Your task to perform on an android device: Open the Play Movies app and select the watchlist tab. Image 0: 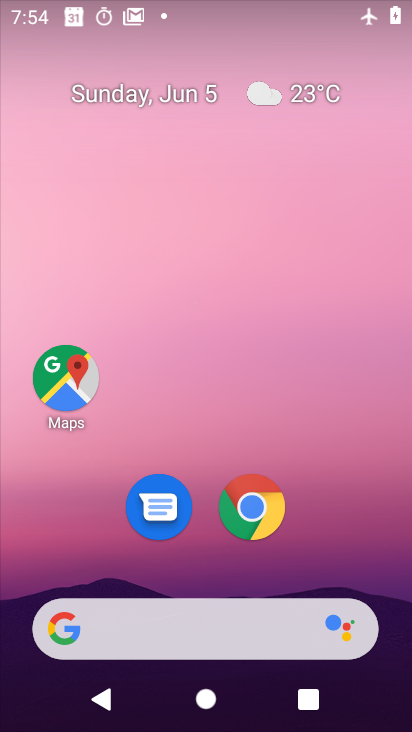
Step 0: drag from (270, 670) to (85, 75)
Your task to perform on an android device: Open the Play Movies app and select the watchlist tab. Image 1: 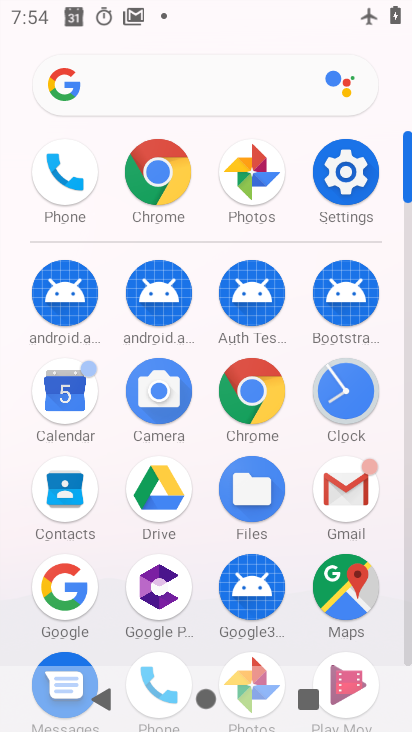
Step 1: drag from (298, 544) to (246, 403)
Your task to perform on an android device: Open the Play Movies app and select the watchlist tab. Image 2: 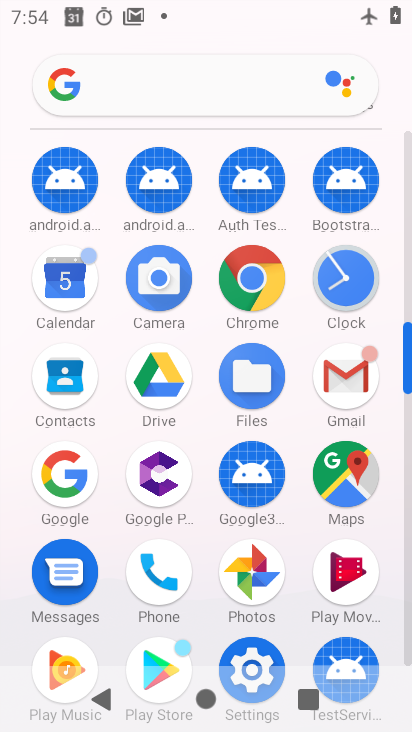
Step 2: click (344, 589)
Your task to perform on an android device: Open the Play Movies app and select the watchlist tab. Image 3: 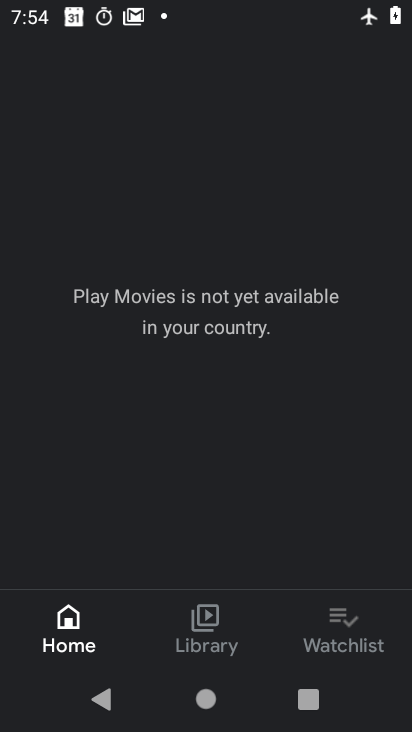
Step 3: click (322, 638)
Your task to perform on an android device: Open the Play Movies app and select the watchlist tab. Image 4: 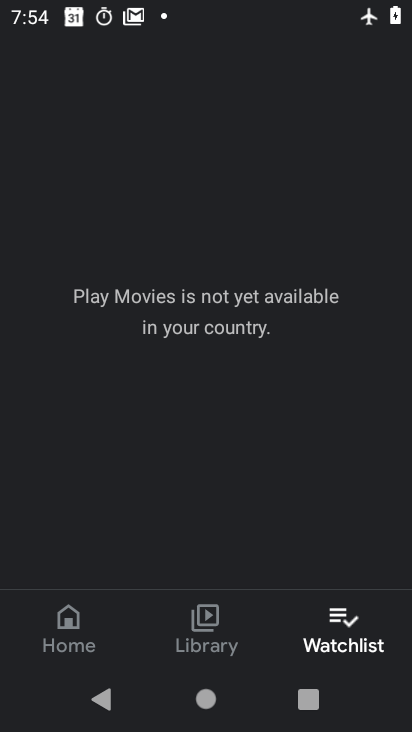
Step 4: task complete